Your task to perform on an android device: turn on improve location accuracy Image 0: 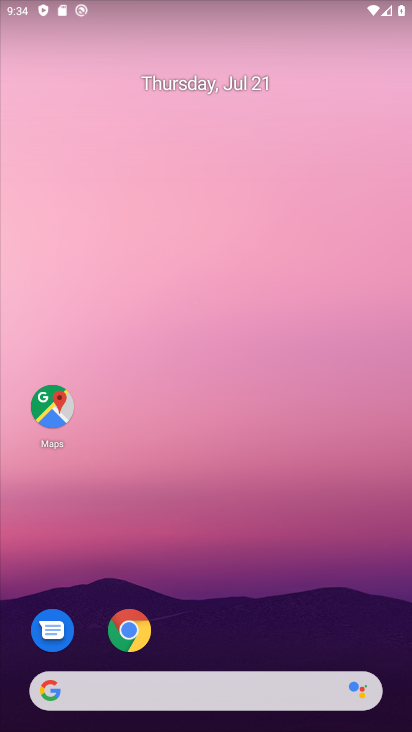
Step 0: drag from (307, 609) to (333, 18)
Your task to perform on an android device: turn on improve location accuracy Image 1: 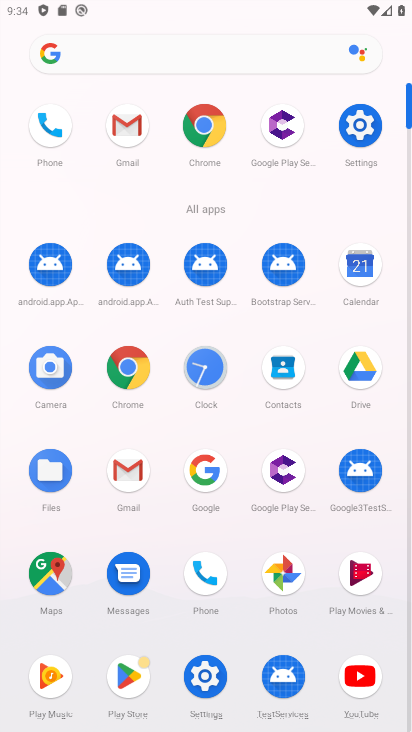
Step 1: click (366, 131)
Your task to perform on an android device: turn on improve location accuracy Image 2: 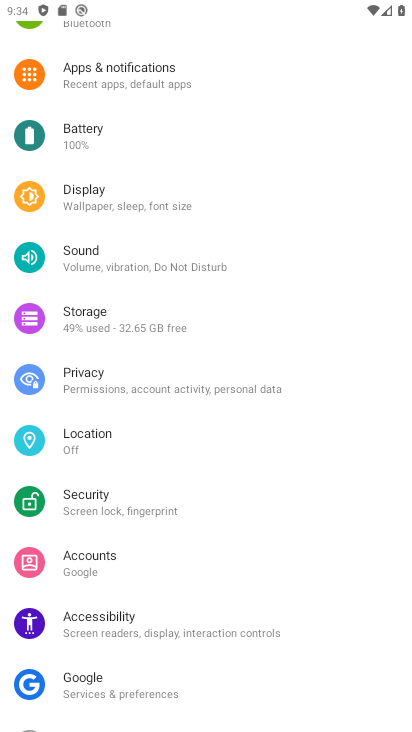
Step 2: drag from (99, 266) to (123, 423)
Your task to perform on an android device: turn on improve location accuracy Image 3: 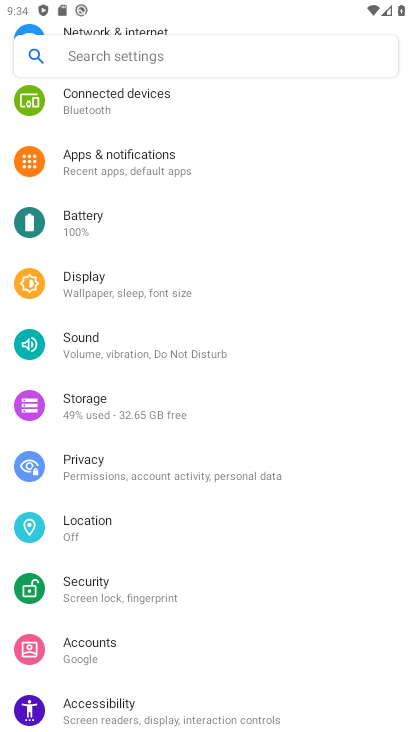
Step 3: click (122, 525)
Your task to perform on an android device: turn on improve location accuracy Image 4: 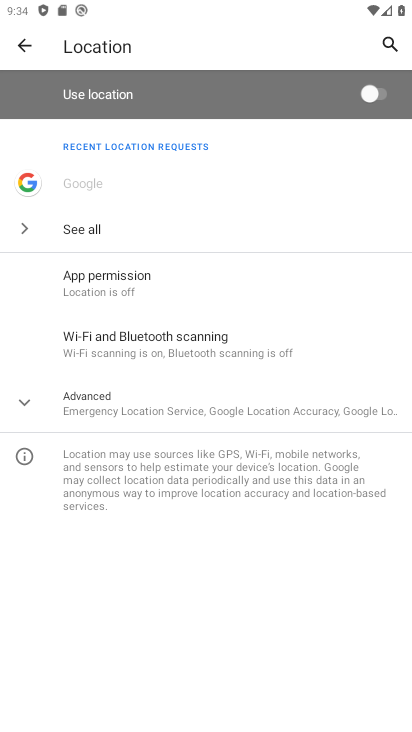
Step 4: click (171, 395)
Your task to perform on an android device: turn on improve location accuracy Image 5: 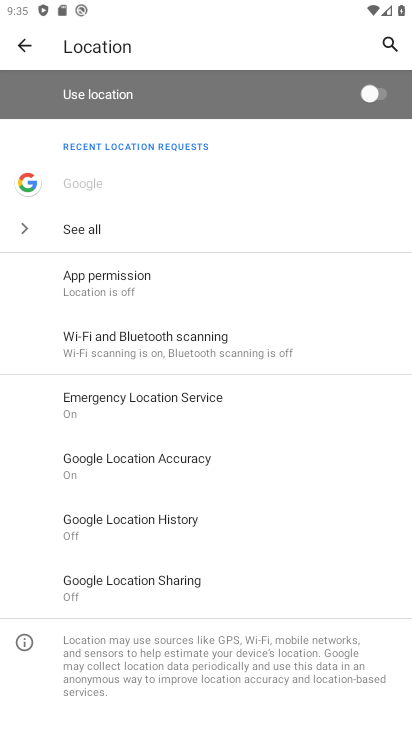
Step 5: click (237, 460)
Your task to perform on an android device: turn on improve location accuracy Image 6: 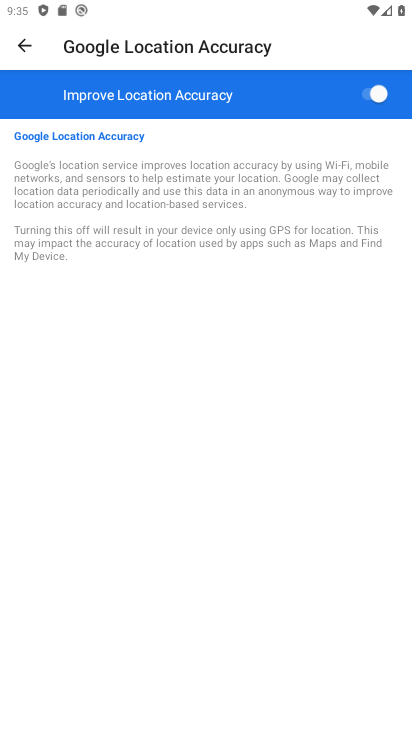
Step 6: task complete